Your task to perform on an android device: Go to privacy settings Image 0: 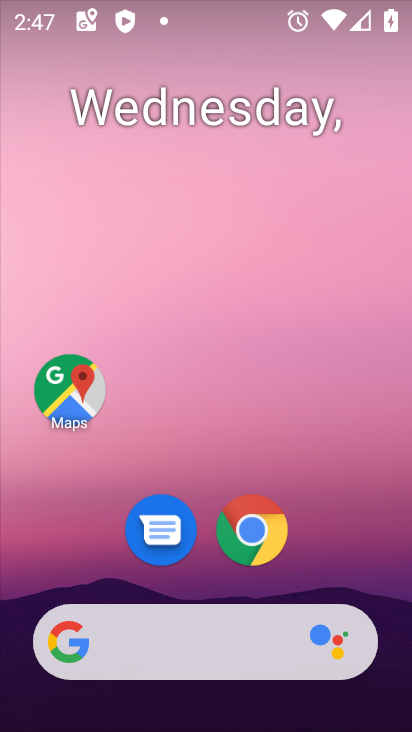
Step 0: drag from (272, 249) to (295, 5)
Your task to perform on an android device: Go to privacy settings Image 1: 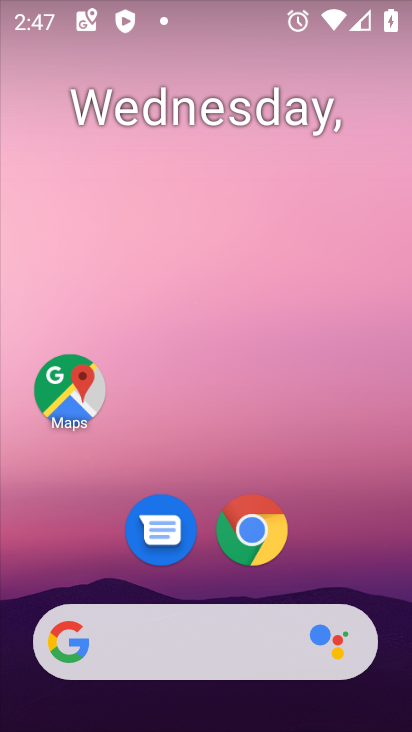
Step 1: drag from (215, 629) to (170, 4)
Your task to perform on an android device: Go to privacy settings Image 2: 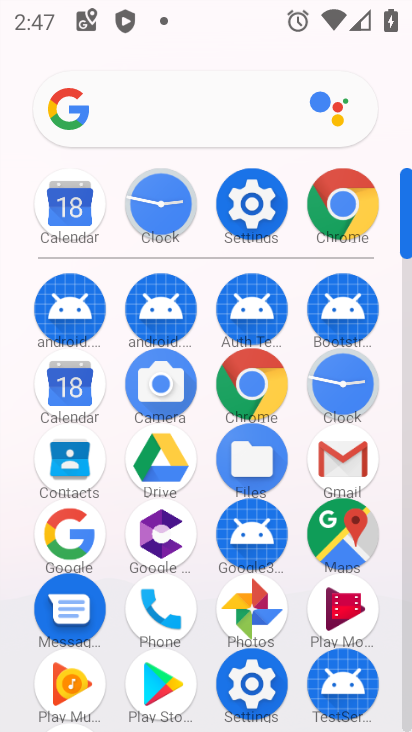
Step 2: click (243, 205)
Your task to perform on an android device: Go to privacy settings Image 3: 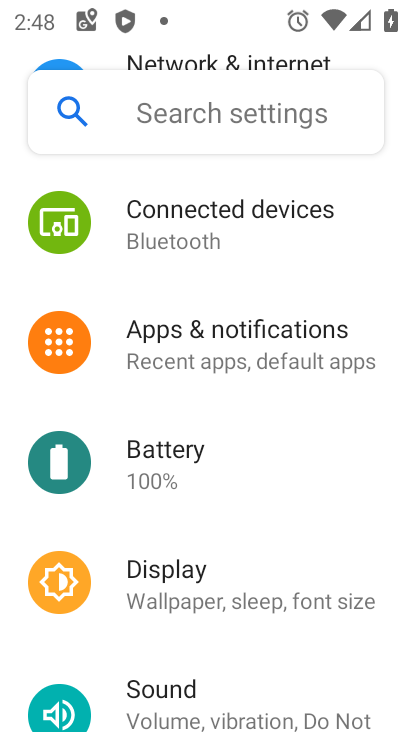
Step 3: drag from (179, 589) to (213, 62)
Your task to perform on an android device: Go to privacy settings Image 4: 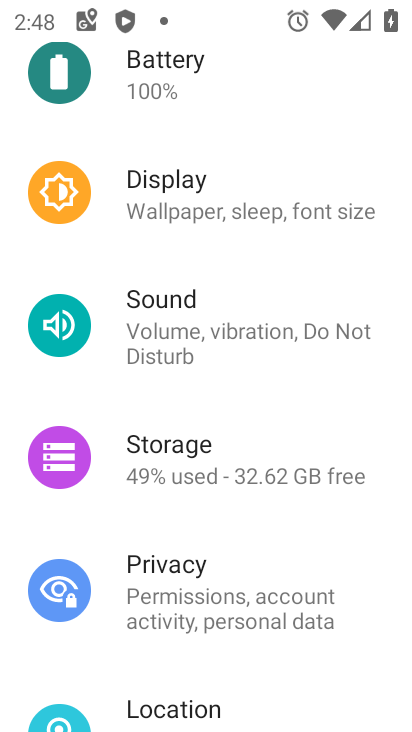
Step 4: click (137, 577)
Your task to perform on an android device: Go to privacy settings Image 5: 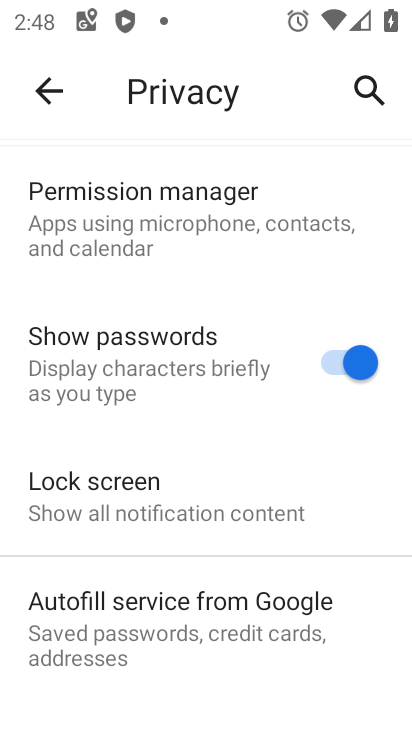
Step 5: task complete